Your task to perform on an android device: Open the web browser Image 0: 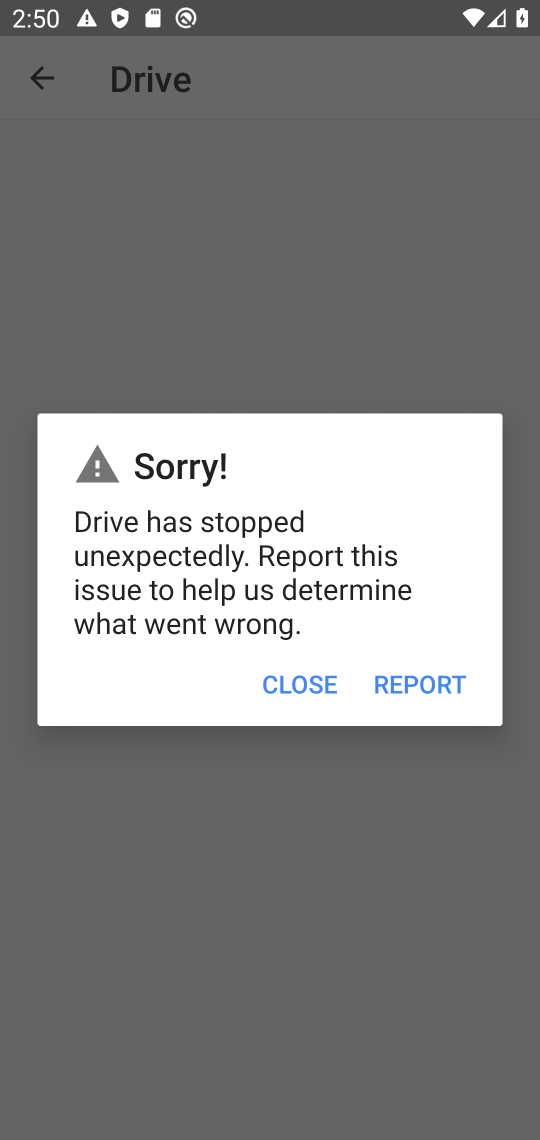
Step 0: press home button
Your task to perform on an android device: Open the web browser Image 1: 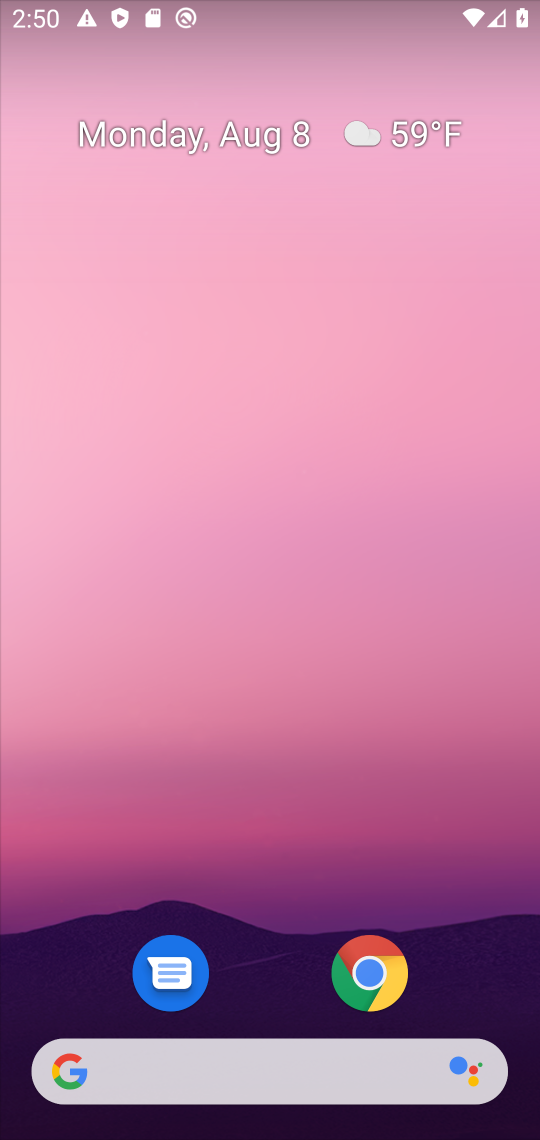
Step 1: click (393, 957)
Your task to perform on an android device: Open the web browser Image 2: 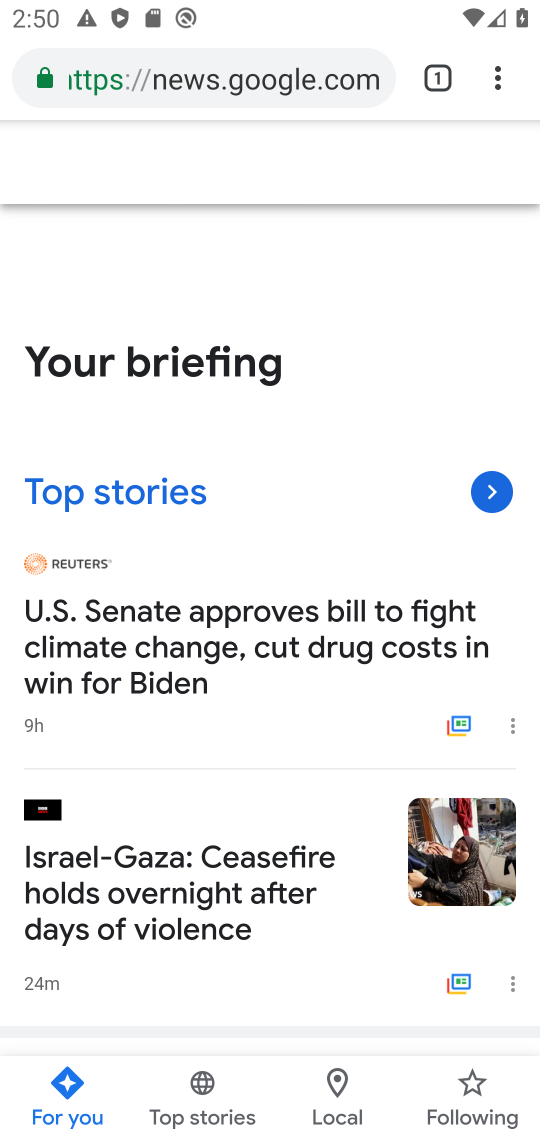
Step 2: task complete